Your task to perform on an android device: Open Yahoo.com Image 0: 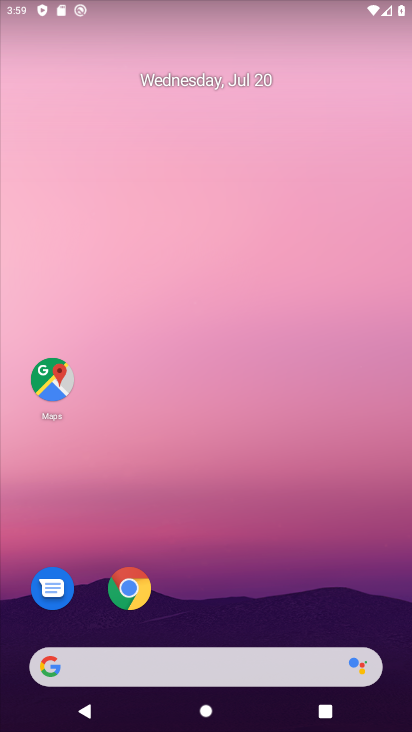
Step 0: press home button
Your task to perform on an android device: Open Yahoo.com Image 1: 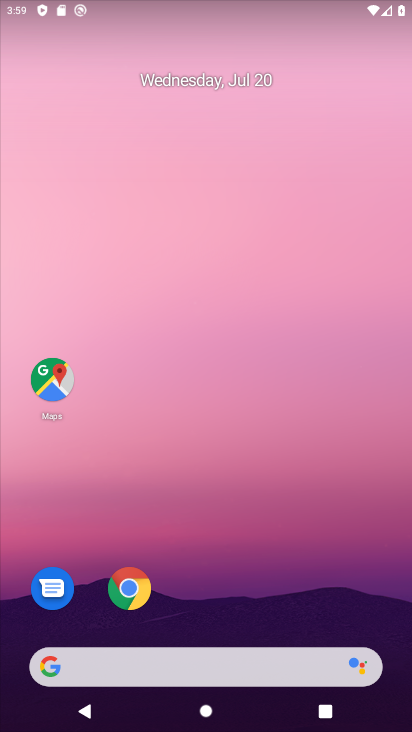
Step 1: click (124, 585)
Your task to perform on an android device: Open Yahoo.com Image 2: 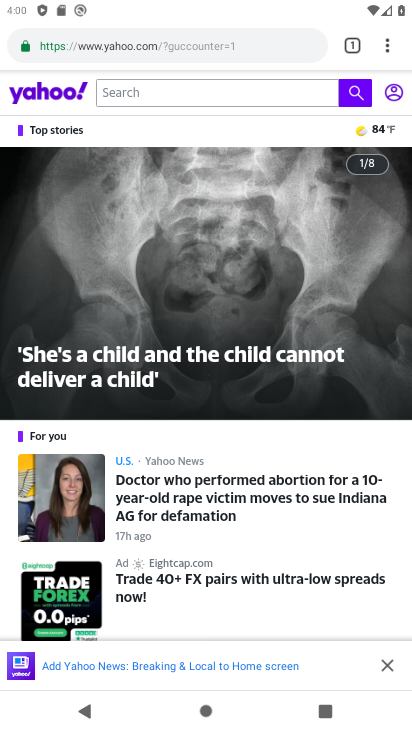
Step 2: task complete